Your task to perform on an android device: Open network settings Image 0: 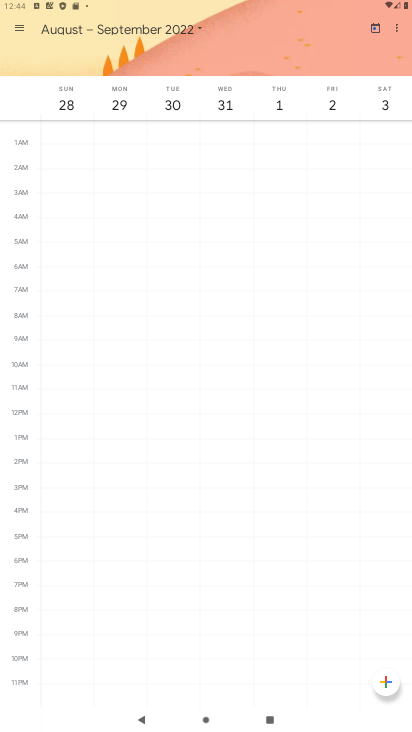
Step 0: press home button
Your task to perform on an android device: Open network settings Image 1: 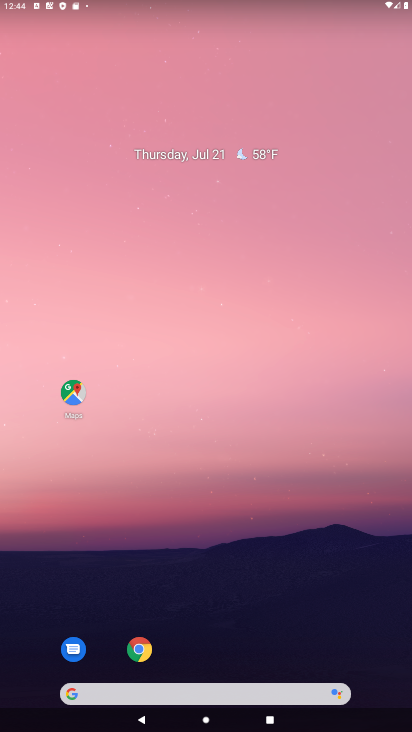
Step 1: drag from (383, 668) to (337, 77)
Your task to perform on an android device: Open network settings Image 2: 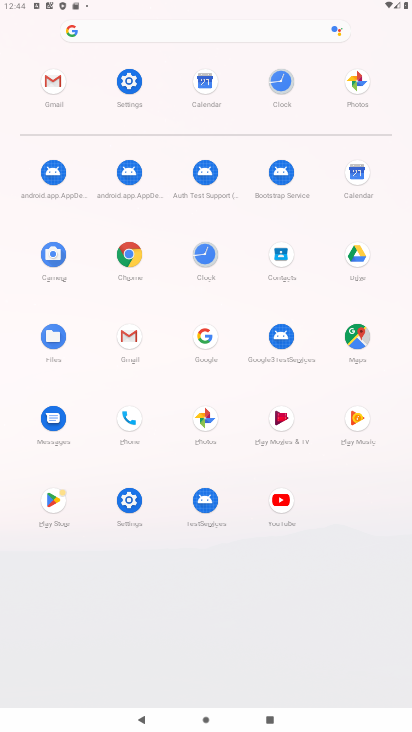
Step 2: click (130, 501)
Your task to perform on an android device: Open network settings Image 3: 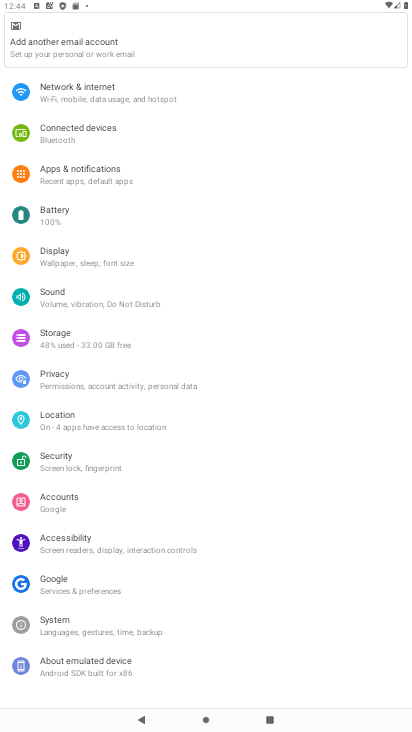
Step 3: click (66, 76)
Your task to perform on an android device: Open network settings Image 4: 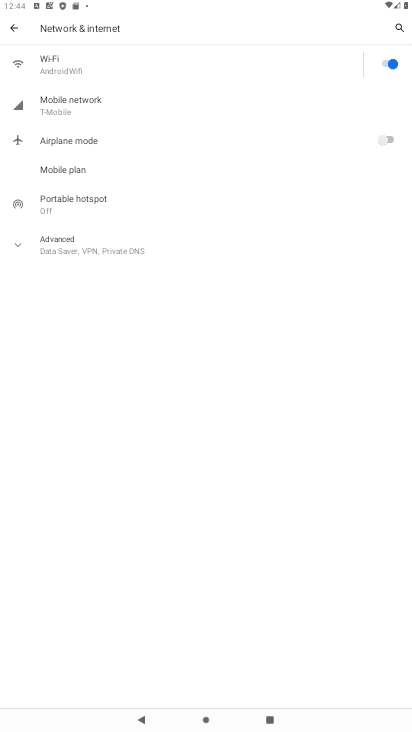
Step 4: click (62, 103)
Your task to perform on an android device: Open network settings Image 5: 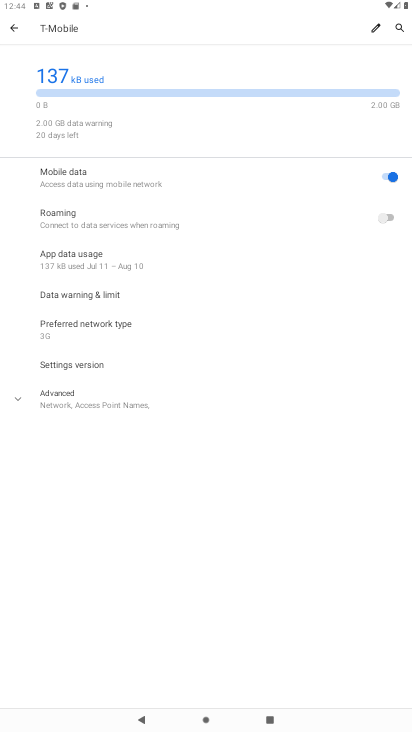
Step 5: click (17, 398)
Your task to perform on an android device: Open network settings Image 6: 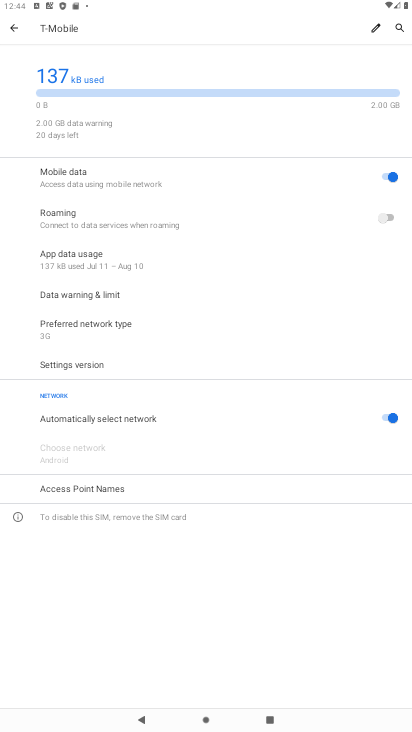
Step 6: task complete